Your task to perform on an android device: turn off smart reply in the gmail app Image 0: 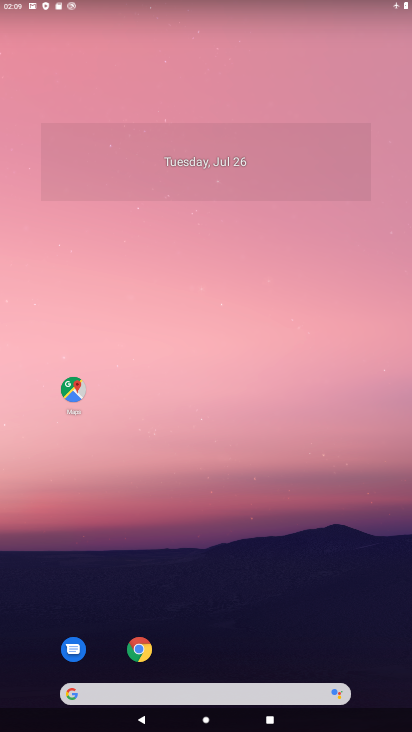
Step 0: drag from (204, 688) to (232, 174)
Your task to perform on an android device: turn off smart reply in the gmail app Image 1: 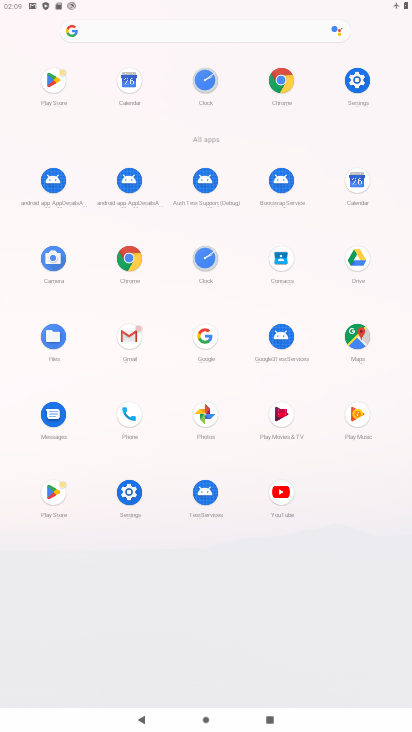
Step 1: click (128, 331)
Your task to perform on an android device: turn off smart reply in the gmail app Image 2: 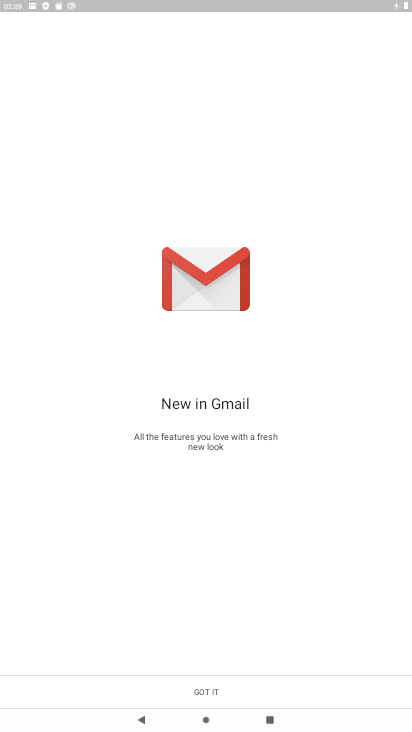
Step 2: click (202, 693)
Your task to perform on an android device: turn off smart reply in the gmail app Image 3: 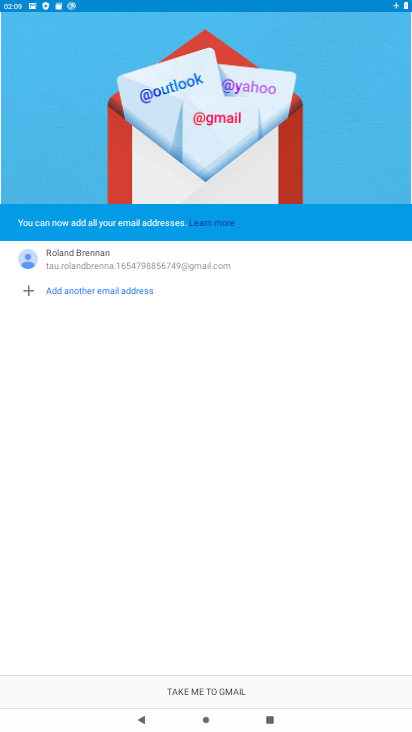
Step 3: click (193, 690)
Your task to perform on an android device: turn off smart reply in the gmail app Image 4: 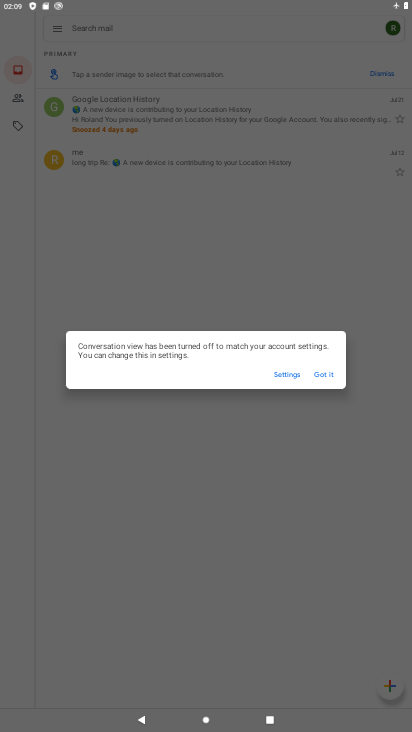
Step 4: click (322, 374)
Your task to perform on an android device: turn off smart reply in the gmail app Image 5: 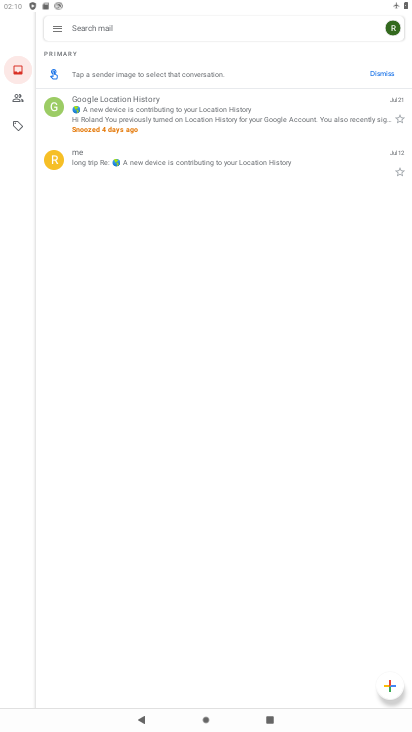
Step 5: click (55, 29)
Your task to perform on an android device: turn off smart reply in the gmail app Image 6: 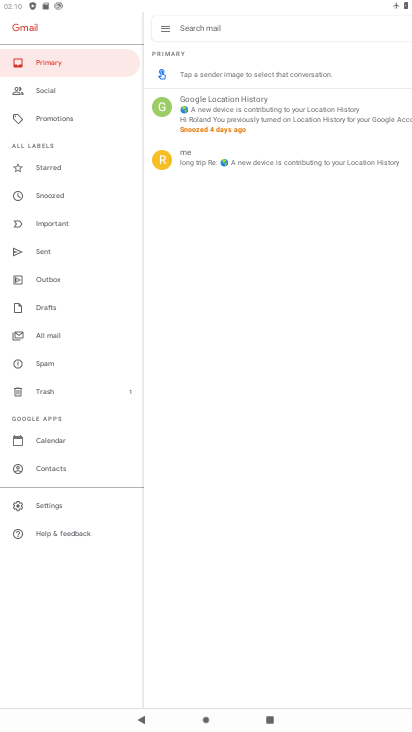
Step 6: click (47, 506)
Your task to perform on an android device: turn off smart reply in the gmail app Image 7: 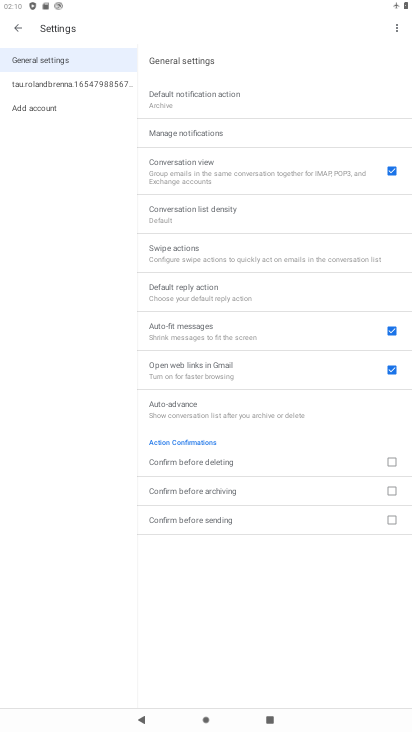
Step 7: click (100, 82)
Your task to perform on an android device: turn off smart reply in the gmail app Image 8: 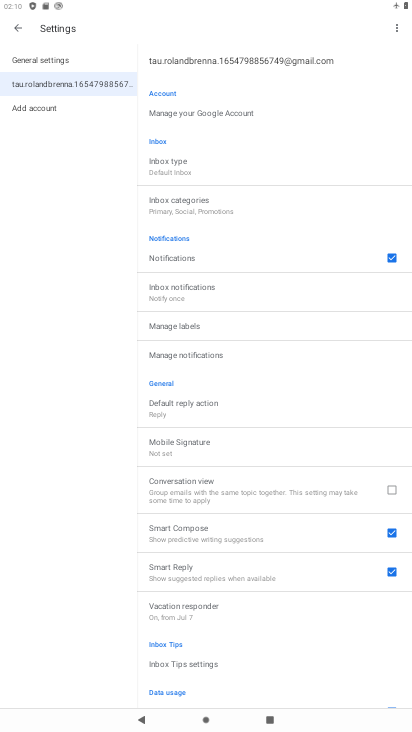
Step 8: click (392, 575)
Your task to perform on an android device: turn off smart reply in the gmail app Image 9: 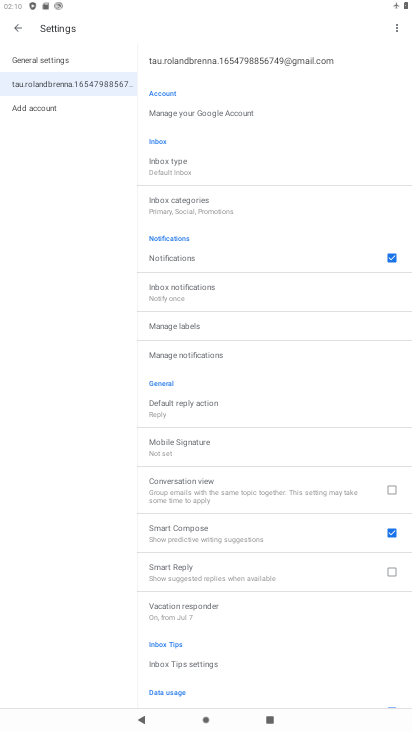
Step 9: task complete